Your task to perform on an android device: turn off wifi Image 0: 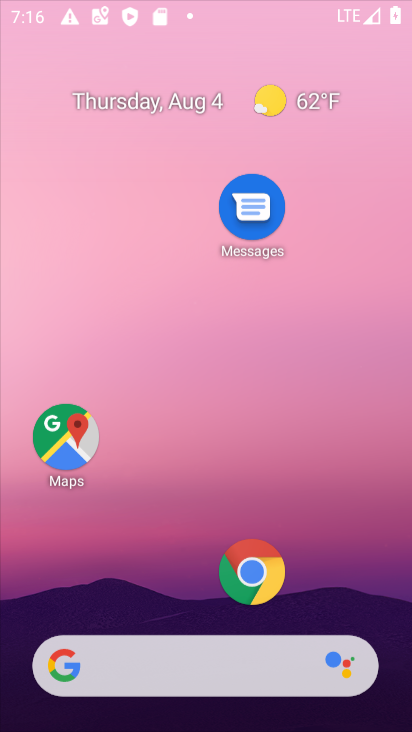
Step 0: press home button
Your task to perform on an android device: turn off wifi Image 1: 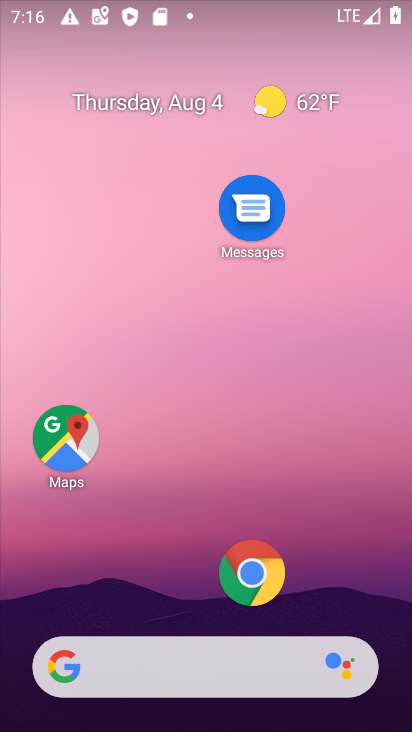
Step 1: task complete